Your task to perform on an android device: set default search engine in the chrome app Image 0: 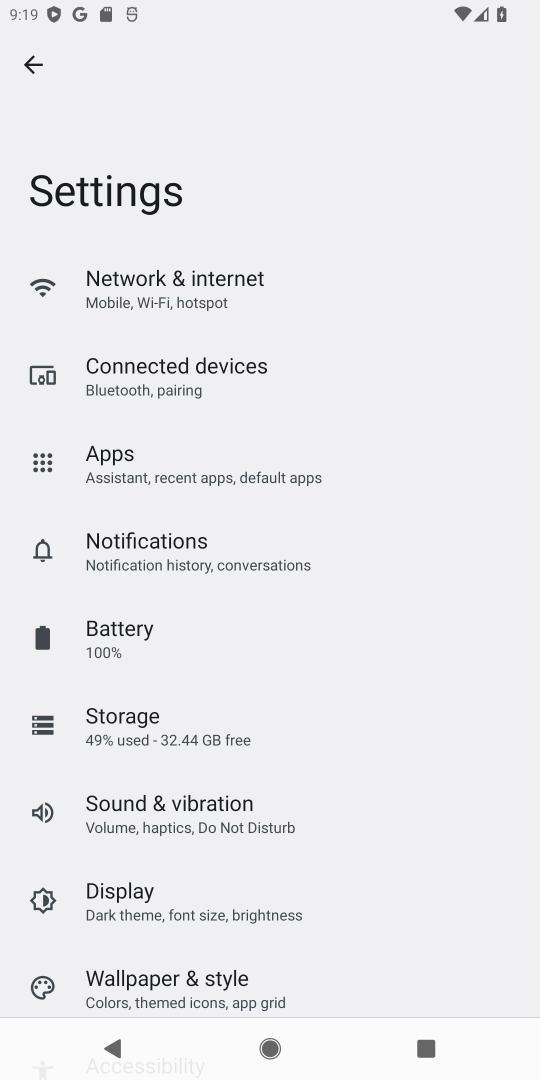
Step 0: press home button
Your task to perform on an android device: set default search engine in the chrome app Image 1: 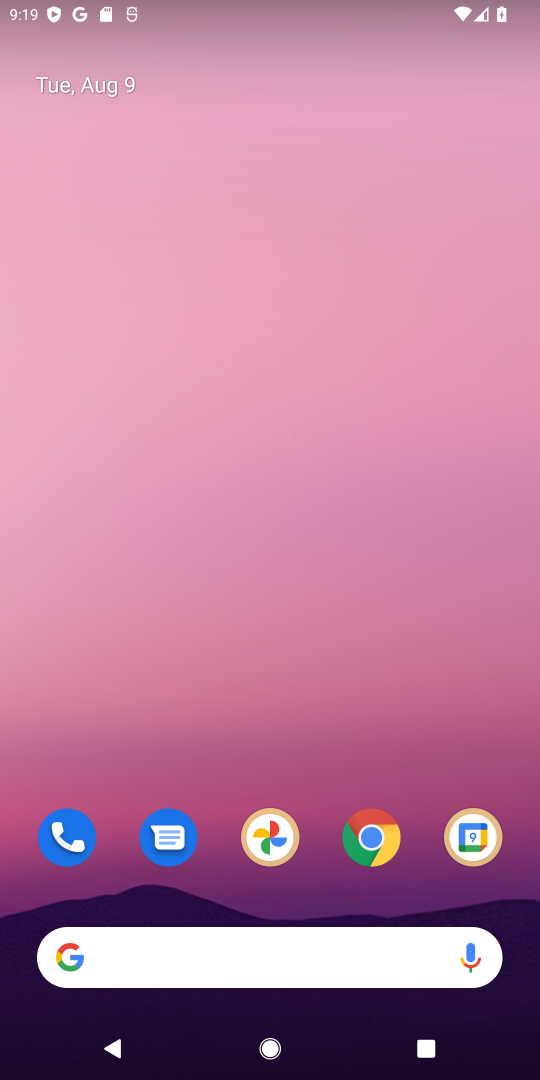
Step 1: click (375, 834)
Your task to perform on an android device: set default search engine in the chrome app Image 2: 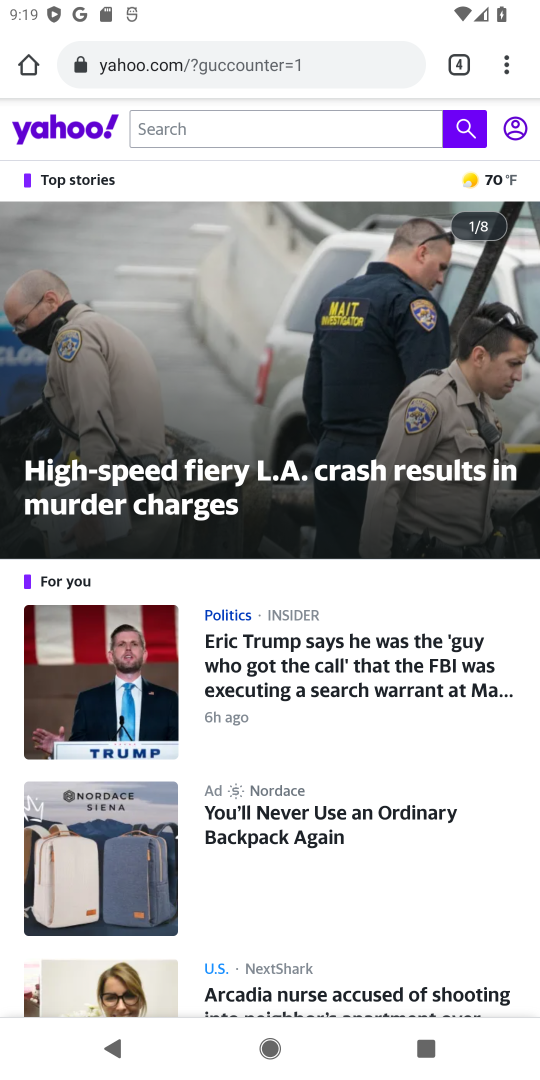
Step 2: click (508, 70)
Your task to perform on an android device: set default search engine in the chrome app Image 3: 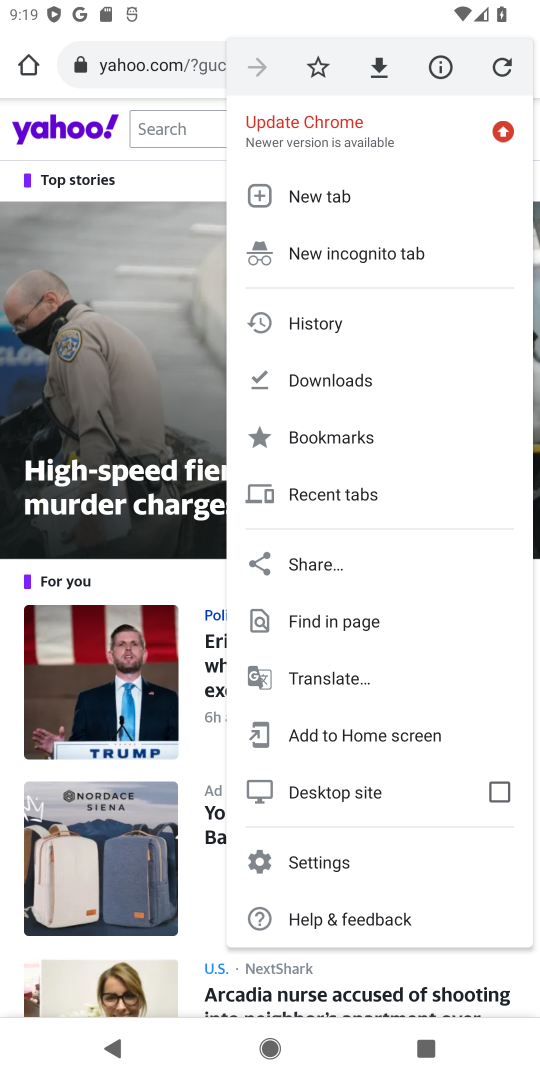
Step 3: click (319, 858)
Your task to perform on an android device: set default search engine in the chrome app Image 4: 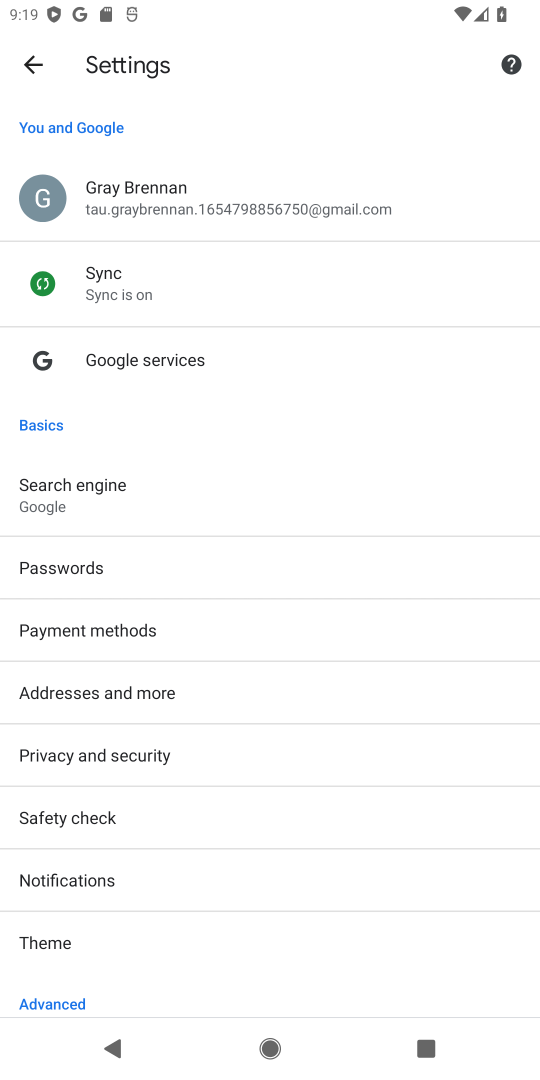
Step 4: click (58, 486)
Your task to perform on an android device: set default search engine in the chrome app Image 5: 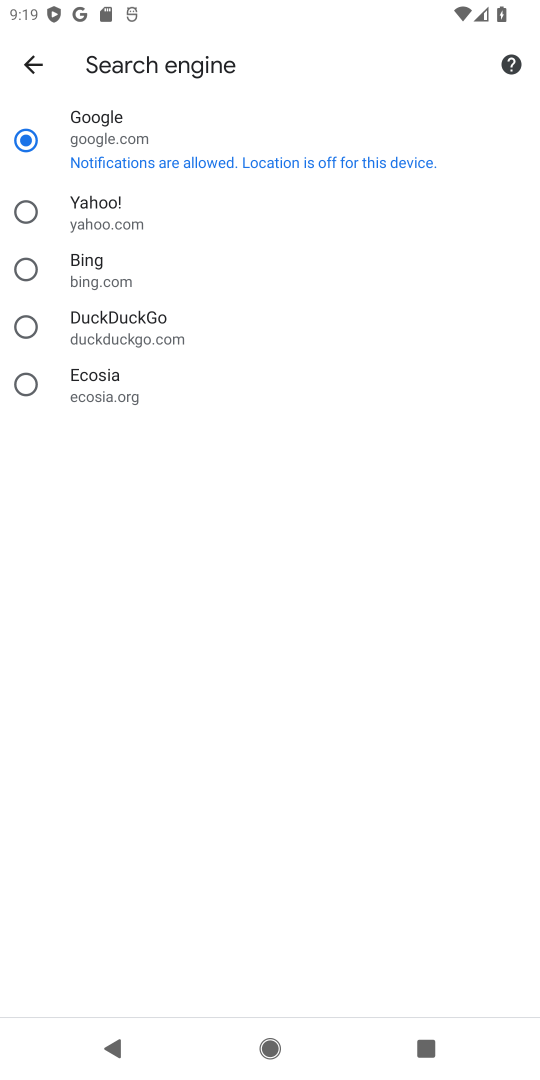
Step 5: click (25, 264)
Your task to perform on an android device: set default search engine in the chrome app Image 6: 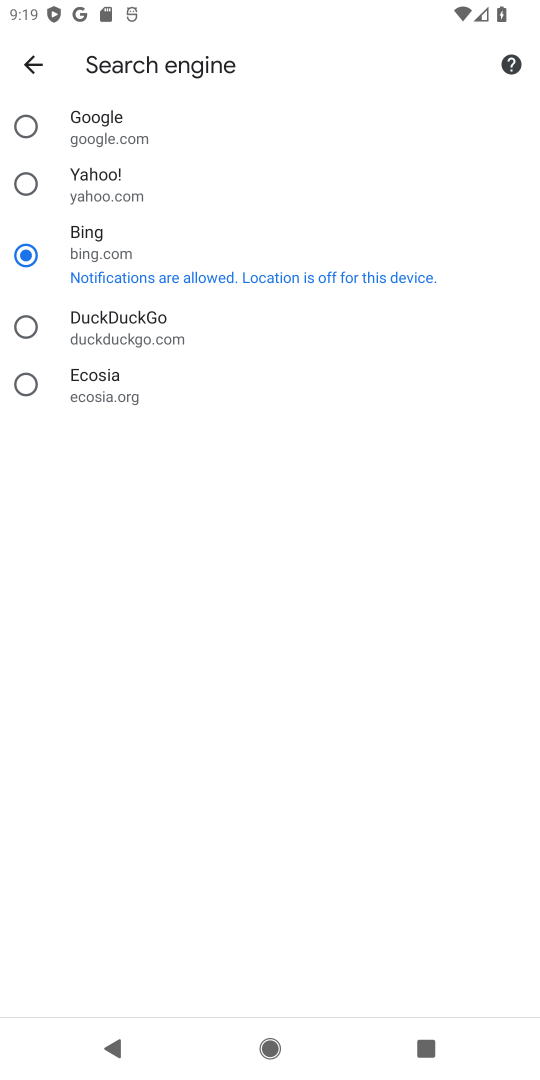
Step 6: task complete